Your task to perform on an android device: Go to Google Image 0: 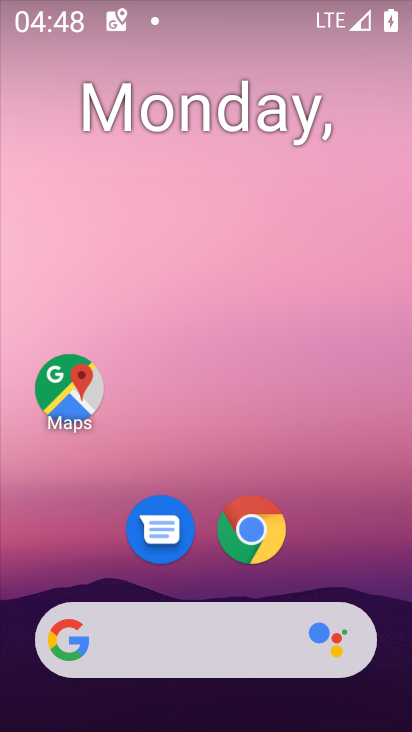
Step 0: drag from (366, 563) to (272, 160)
Your task to perform on an android device: Go to Google Image 1: 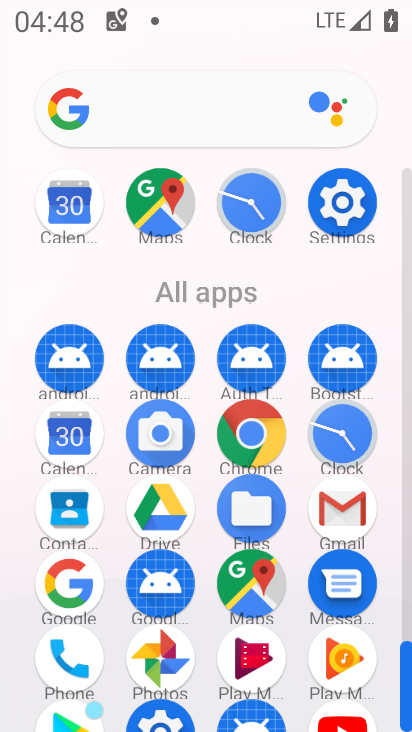
Step 1: click (81, 571)
Your task to perform on an android device: Go to Google Image 2: 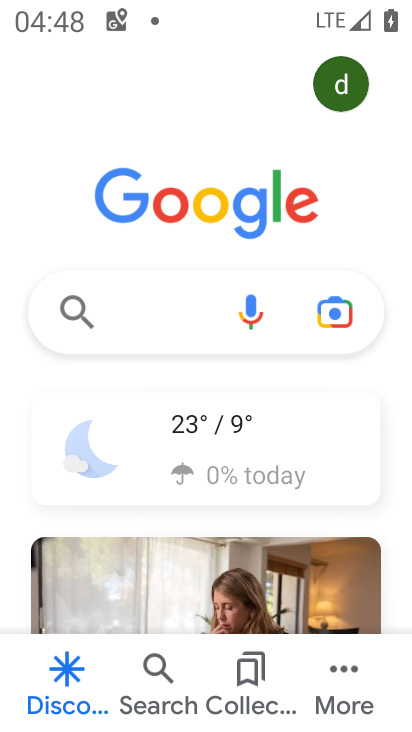
Step 2: task complete